Your task to perform on an android device: turn pop-ups on in chrome Image 0: 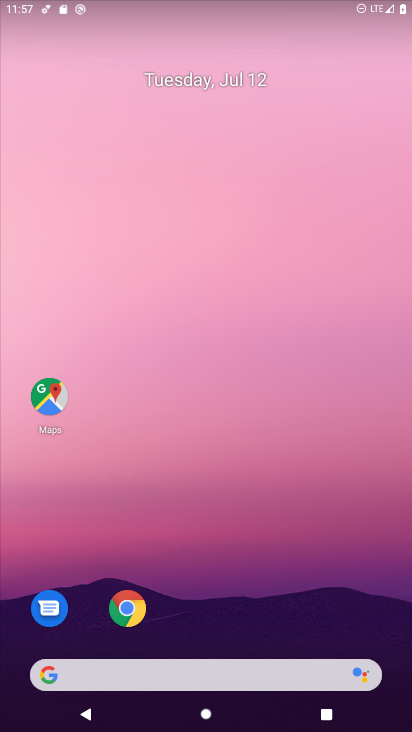
Step 0: click (132, 613)
Your task to perform on an android device: turn pop-ups on in chrome Image 1: 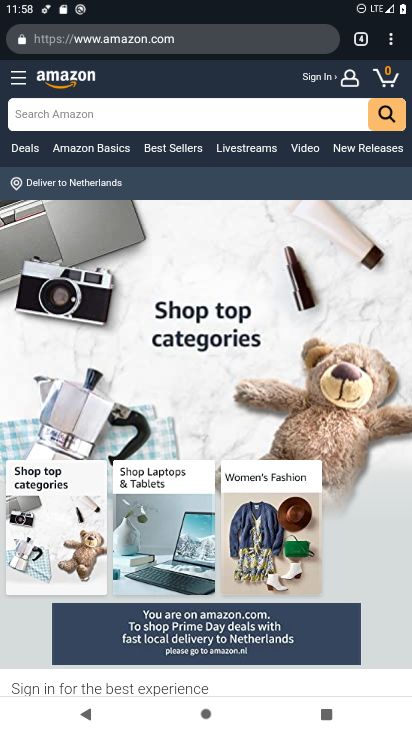
Step 1: click (402, 46)
Your task to perform on an android device: turn pop-ups on in chrome Image 2: 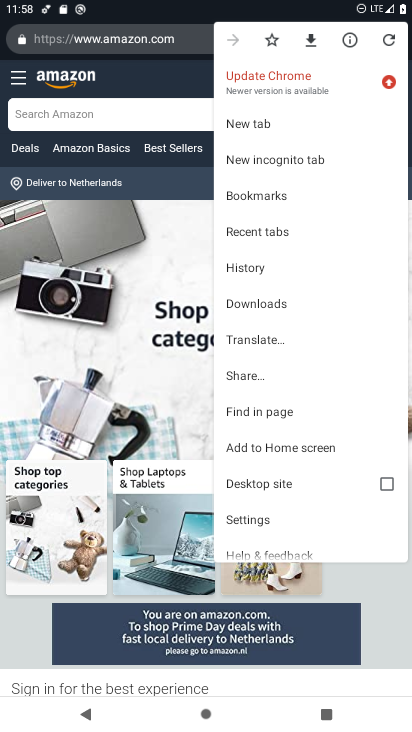
Step 2: click (270, 510)
Your task to perform on an android device: turn pop-ups on in chrome Image 3: 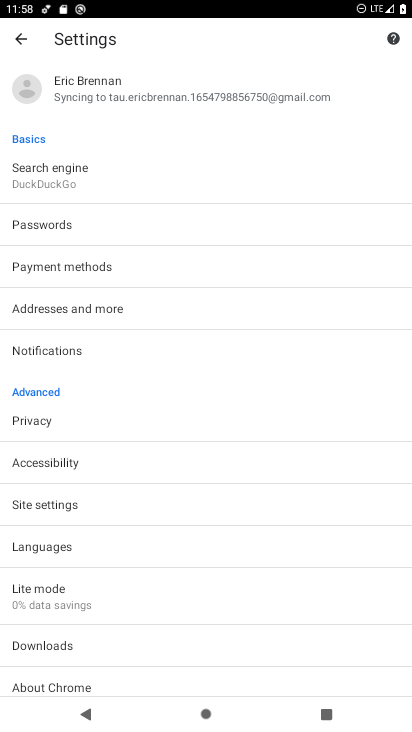
Step 3: drag from (117, 629) to (197, 150)
Your task to perform on an android device: turn pop-ups on in chrome Image 4: 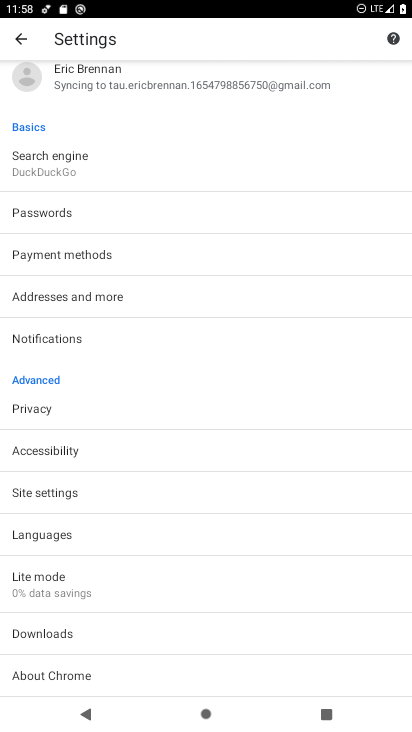
Step 4: drag from (137, 598) to (183, 215)
Your task to perform on an android device: turn pop-ups on in chrome Image 5: 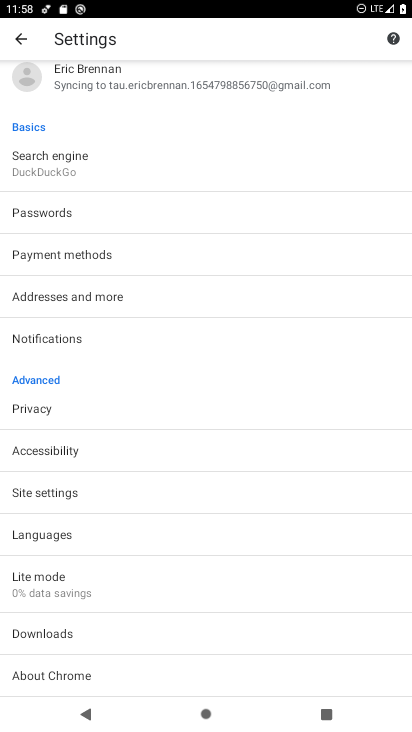
Step 5: click (92, 480)
Your task to perform on an android device: turn pop-ups on in chrome Image 6: 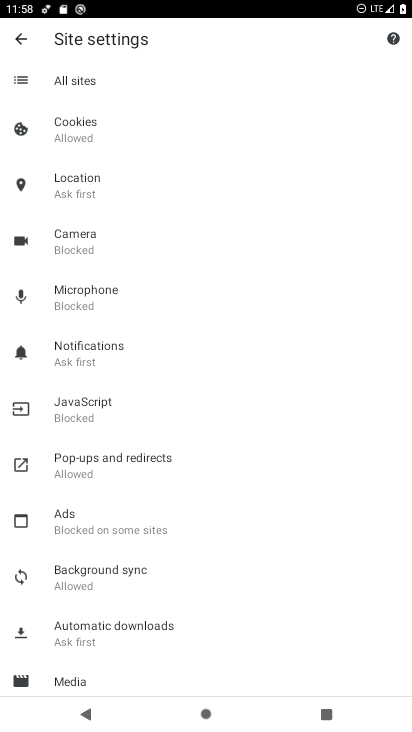
Step 6: click (92, 480)
Your task to perform on an android device: turn pop-ups on in chrome Image 7: 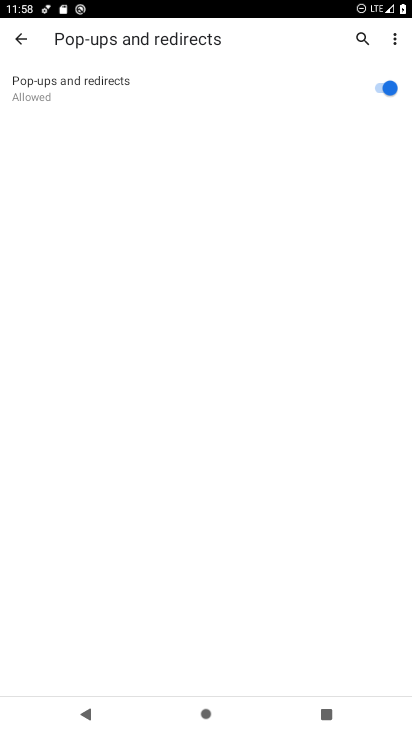
Step 7: task complete